Your task to perform on an android device: Open display settings Image 0: 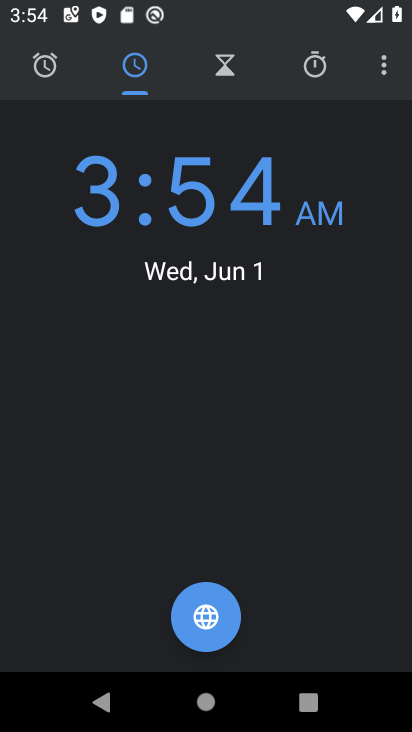
Step 0: press home button
Your task to perform on an android device: Open display settings Image 1: 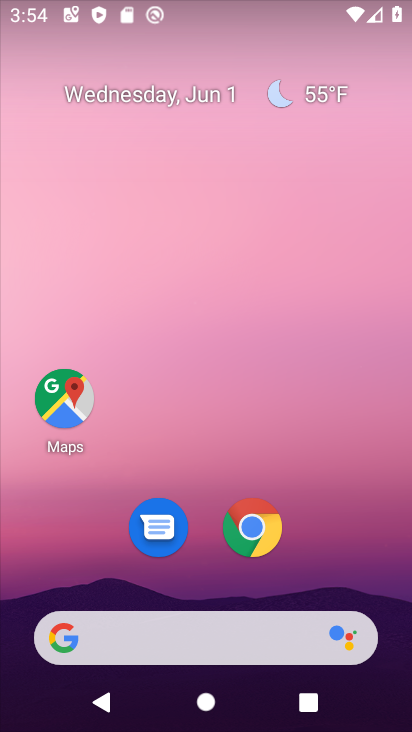
Step 1: drag from (306, 558) to (349, 77)
Your task to perform on an android device: Open display settings Image 2: 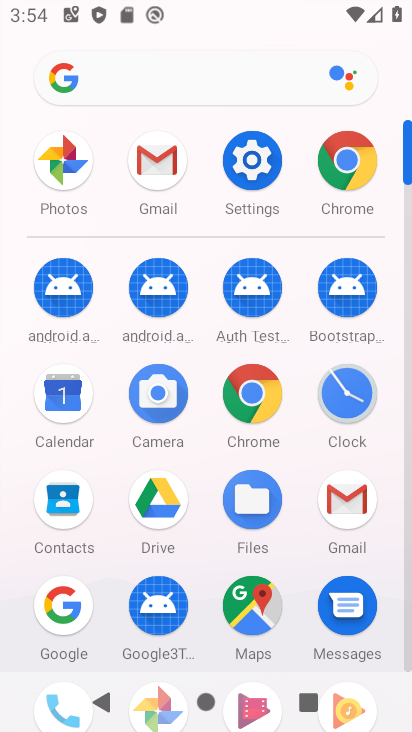
Step 2: click (256, 163)
Your task to perform on an android device: Open display settings Image 3: 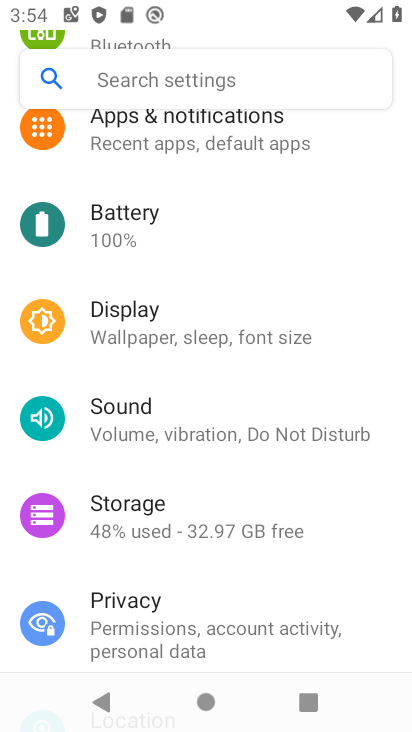
Step 3: click (117, 312)
Your task to perform on an android device: Open display settings Image 4: 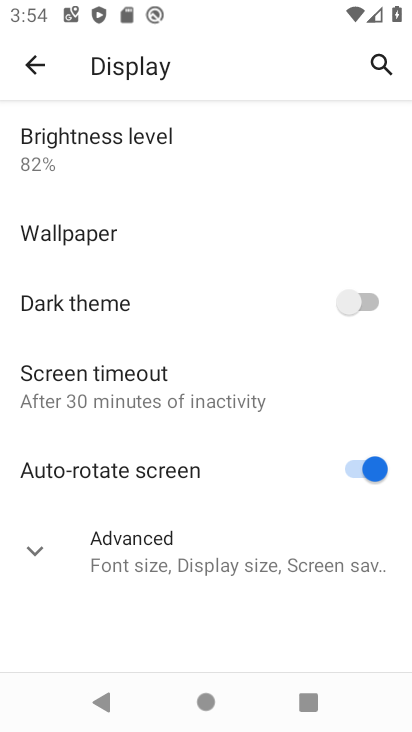
Step 4: task complete